Your task to perform on an android device: Do I have any events tomorrow? Image 0: 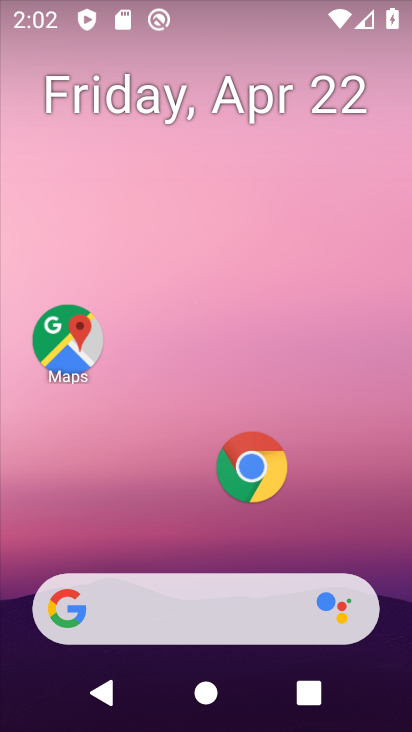
Step 0: drag from (207, 517) to (195, 173)
Your task to perform on an android device: Do I have any events tomorrow? Image 1: 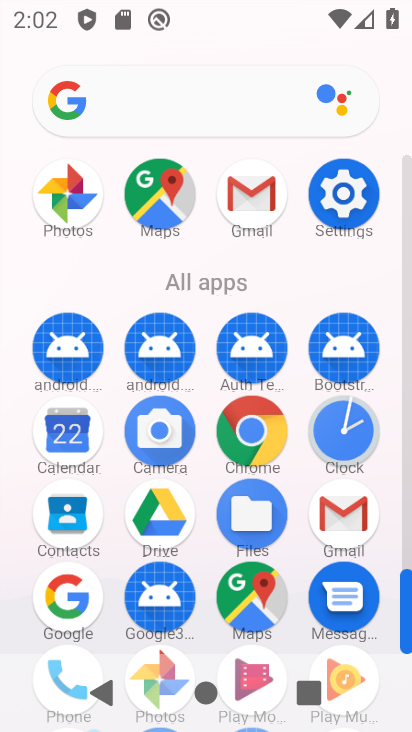
Step 1: click (68, 433)
Your task to perform on an android device: Do I have any events tomorrow? Image 2: 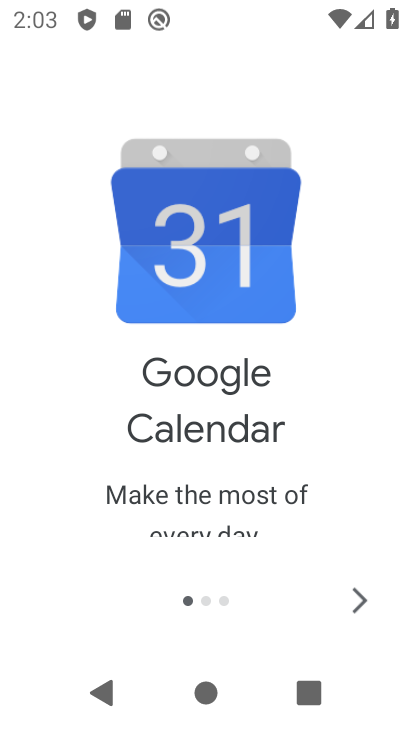
Step 2: click (365, 598)
Your task to perform on an android device: Do I have any events tomorrow? Image 3: 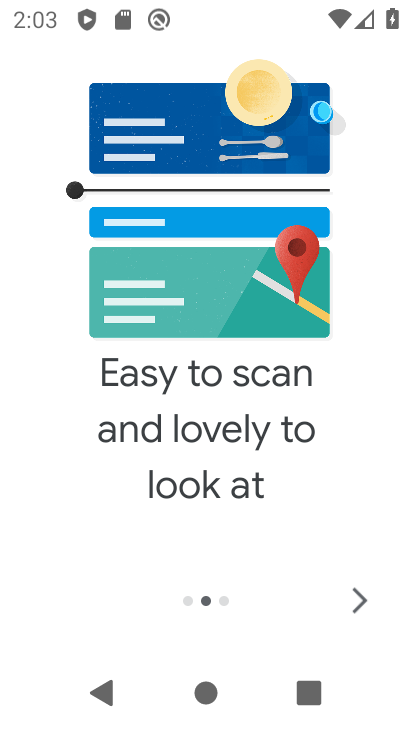
Step 3: click (365, 598)
Your task to perform on an android device: Do I have any events tomorrow? Image 4: 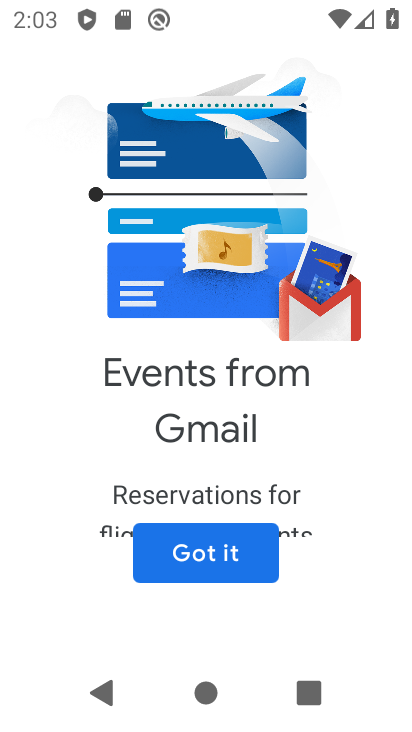
Step 4: click (187, 562)
Your task to perform on an android device: Do I have any events tomorrow? Image 5: 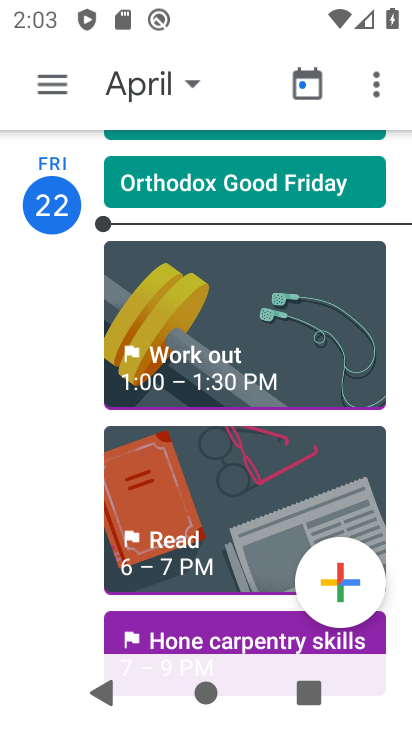
Step 5: click (153, 107)
Your task to perform on an android device: Do I have any events tomorrow? Image 6: 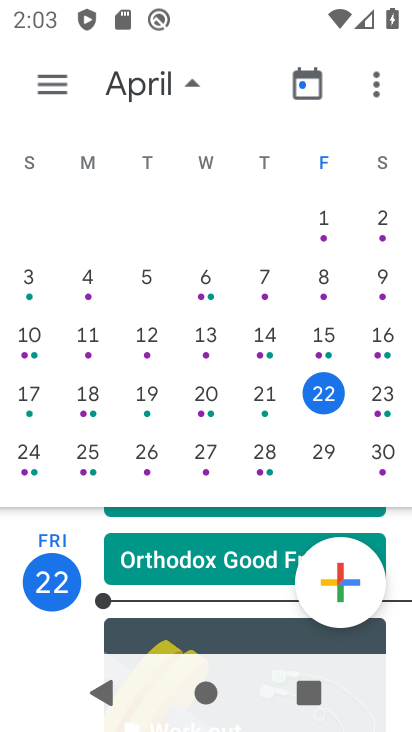
Step 6: click (378, 400)
Your task to perform on an android device: Do I have any events tomorrow? Image 7: 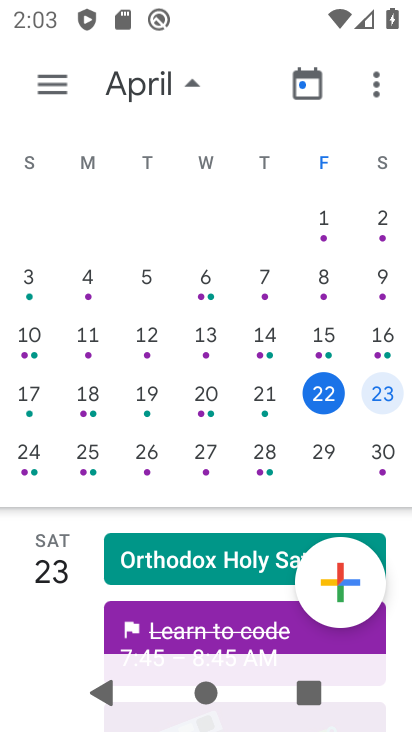
Step 7: task complete